Your task to perform on an android device: turn on translation in the chrome app Image 0: 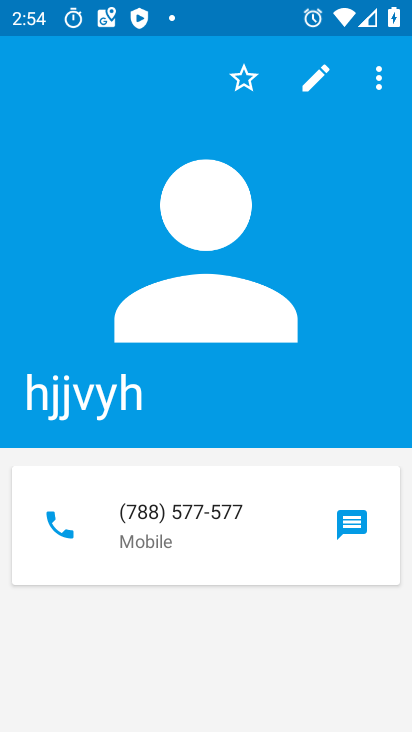
Step 0: press home button
Your task to perform on an android device: turn on translation in the chrome app Image 1: 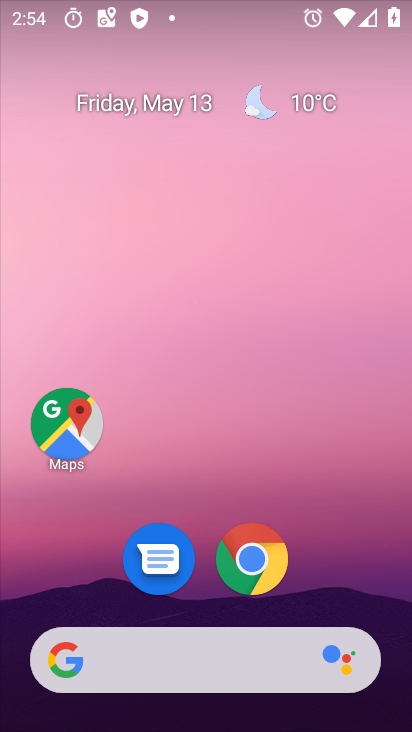
Step 1: click (239, 547)
Your task to perform on an android device: turn on translation in the chrome app Image 2: 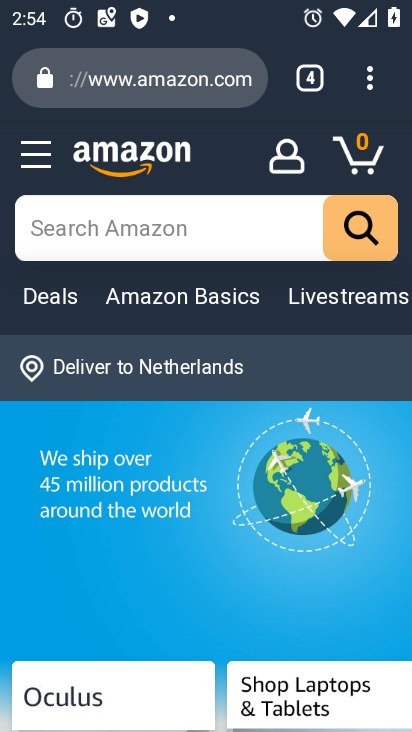
Step 2: drag from (371, 81) to (134, 613)
Your task to perform on an android device: turn on translation in the chrome app Image 3: 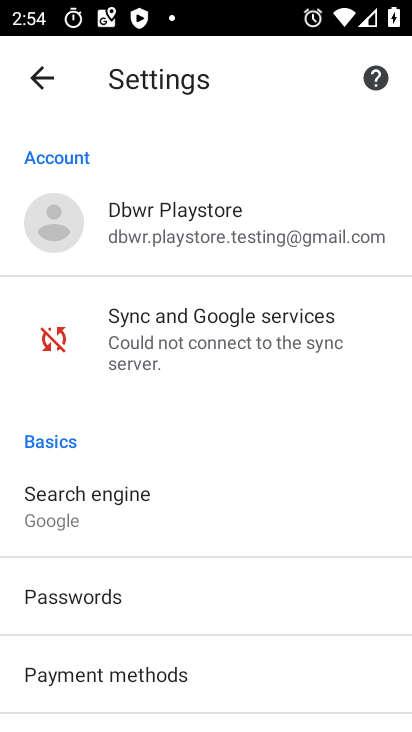
Step 3: drag from (215, 616) to (216, 367)
Your task to perform on an android device: turn on translation in the chrome app Image 4: 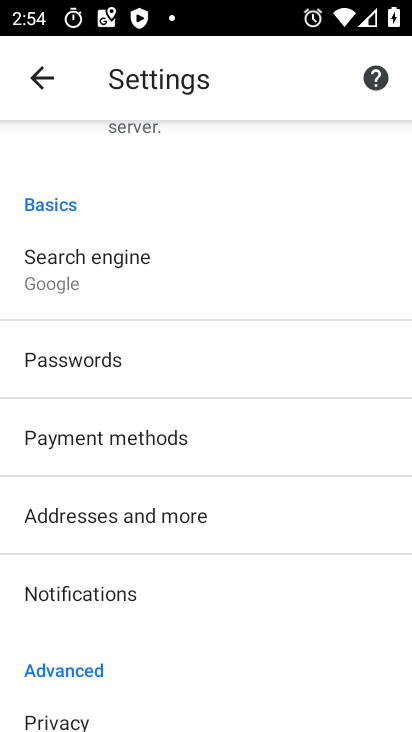
Step 4: drag from (164, 632) to (209, 351)
Your task to perform on an android device: turn on translation in the chrome app Image 5: 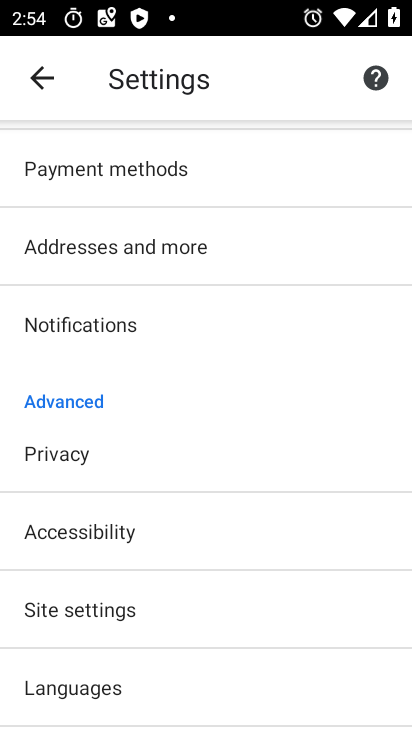
Step 5: click (148, 674)
Your task to perform on an android device: turn on translation in the chrome app Image 6: 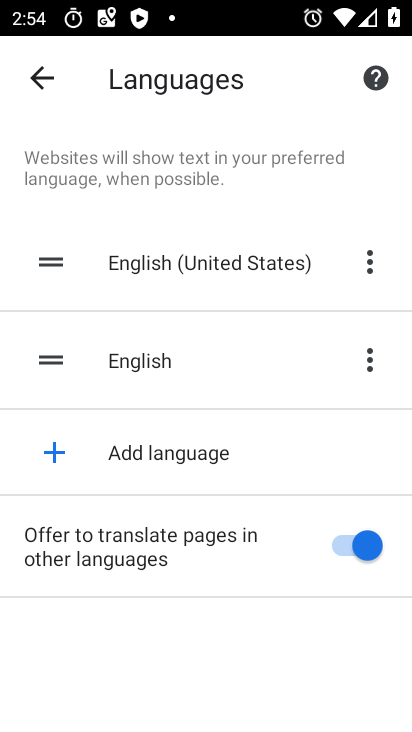
Step 6: task complete